Your task to perform on an android device: What's the weather today? Image 0: 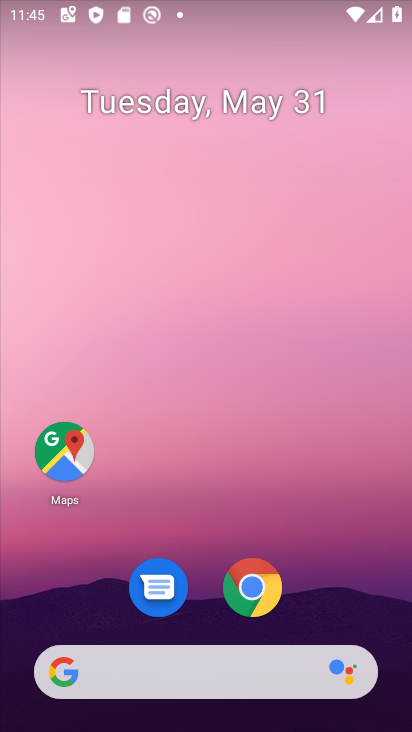
Step 0: click (260, 587)
Your task to perform on an android device: What's the weather today? Image 1: 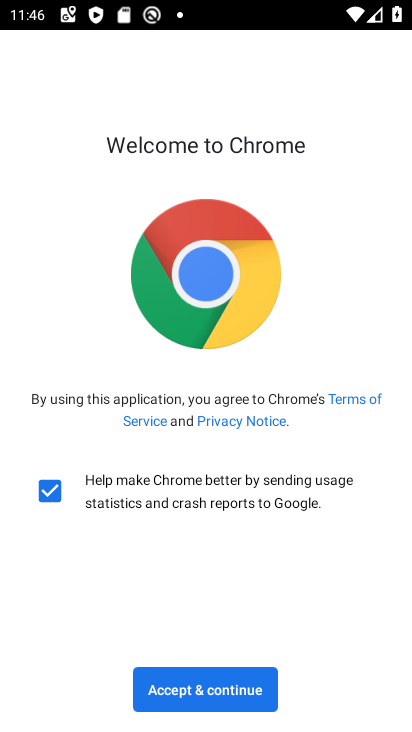
Step 1: click (220, 679)
Your task to perform on an android device: What's the weather today? Image 2: 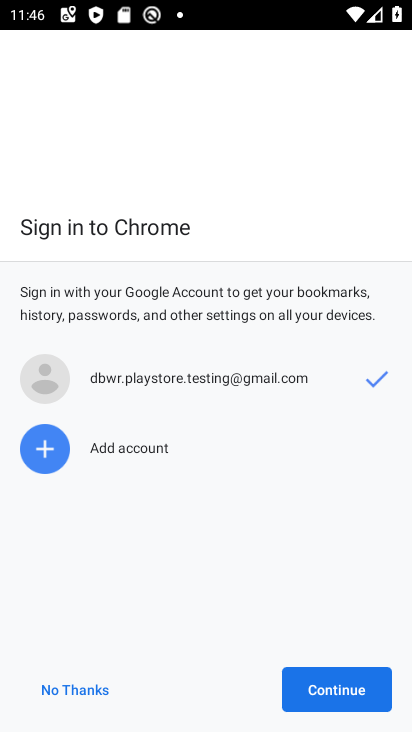
Step 2: click (314, 698)
Your task to perform on an android device: What's the weather today? Image 3: 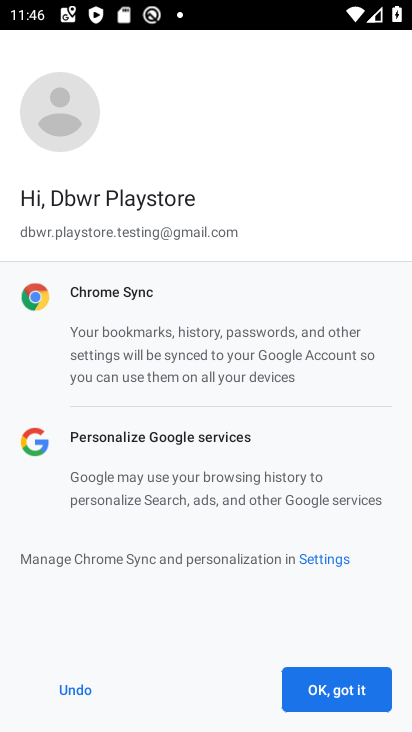
Step 3: click (314, 698)
Your task to perform on an android device: What's the weather today? Image 4: 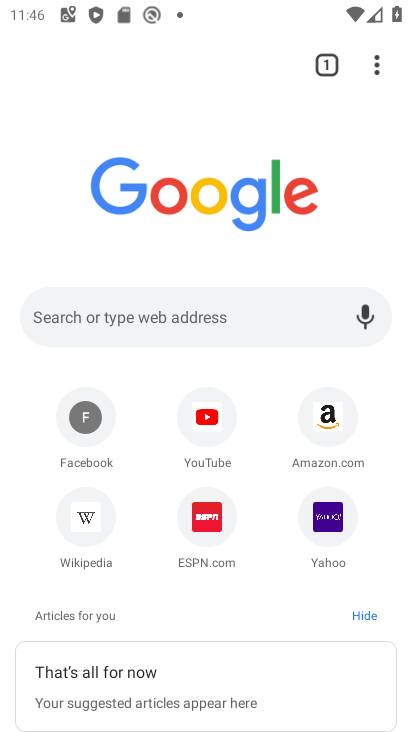
Step 4: click (224, 307)
Your task to perform on an android device: What's the weather today? Image 5: 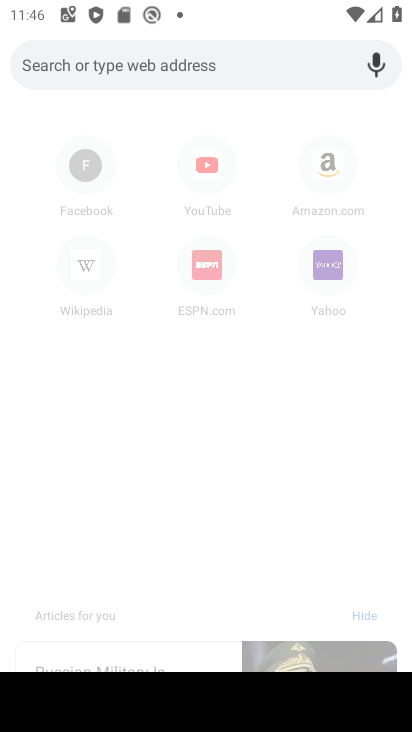
Step 5: type "weather today"
Your task to perform on an android device: What's the weather today? Image 6: 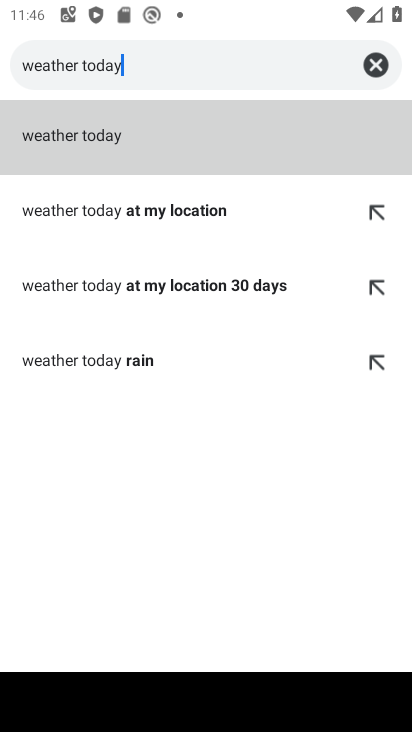
Step 6: click (324, 130)
Your task to perform on an android device: What's the weather today? Image 7: 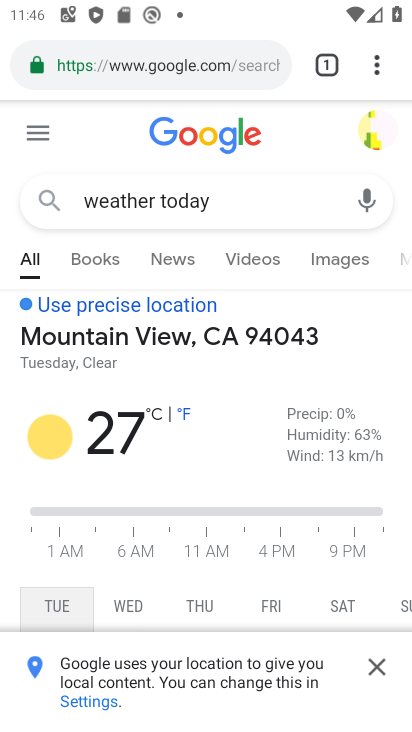
Step 7: task complete